Your task to perform on an android device: Open the map Image 0: 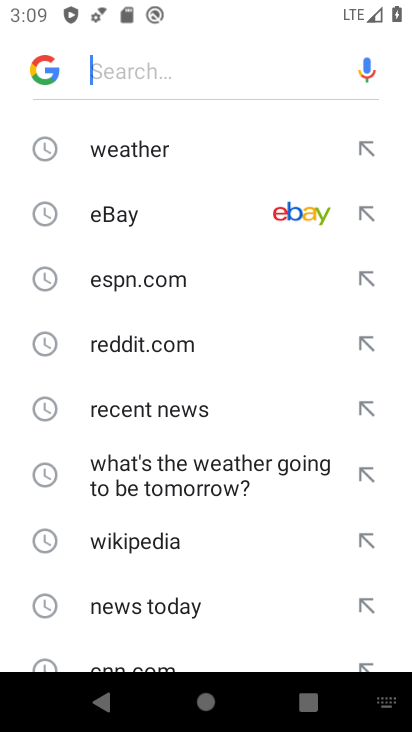
Step 0: press home button
Your task to perform on an android device: Open the map Image 1: 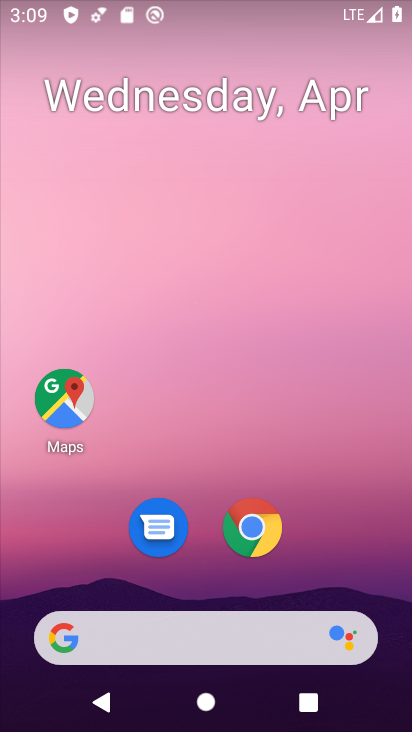
Step 1: click (65, 394)
Your task to perform on an android device: Open the map Image 2: 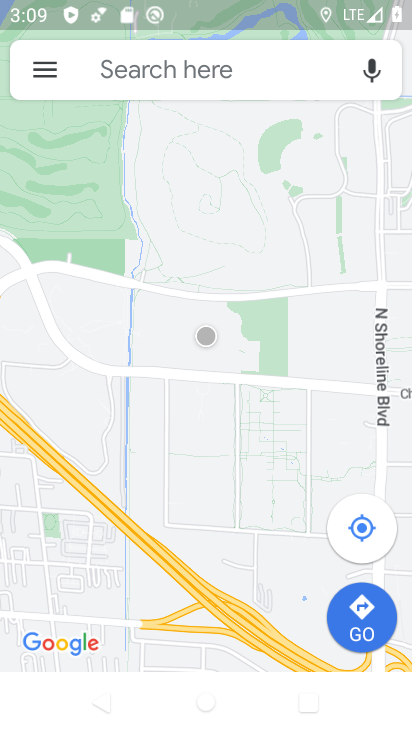
Step 2: task complete